Your task to perform on an android device: Open the web browser Image 0: 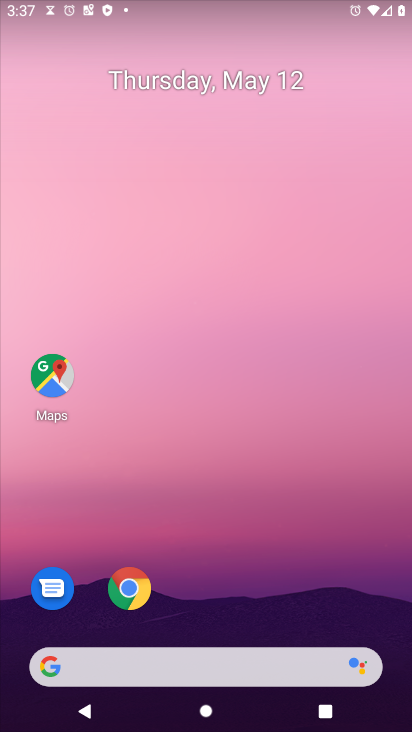
Step 0: drag from (276, 544) to (256, 28)
Your task to perform on an android device: Open the web browser Image 1: 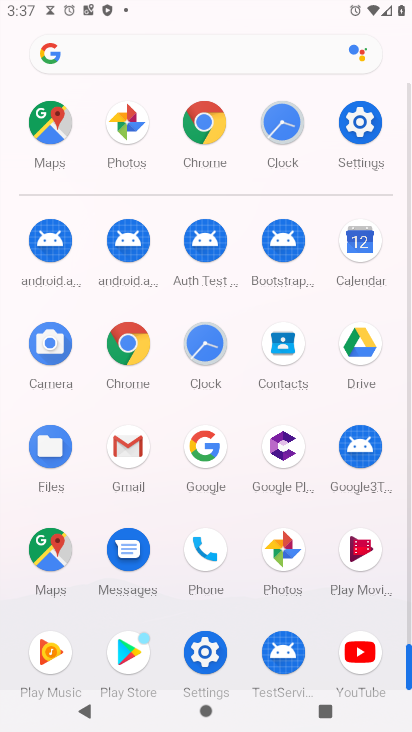
Step 1: drag from (11, 588) to (4, 281)
Your task to perform on an android device: Open the web browser Image 2: 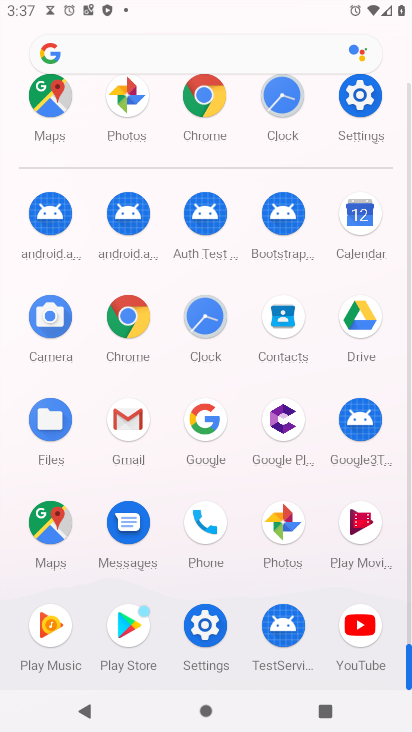
Step 2: click (125, 310)
Your task to perform on an android device: Open the web browser Image 3: 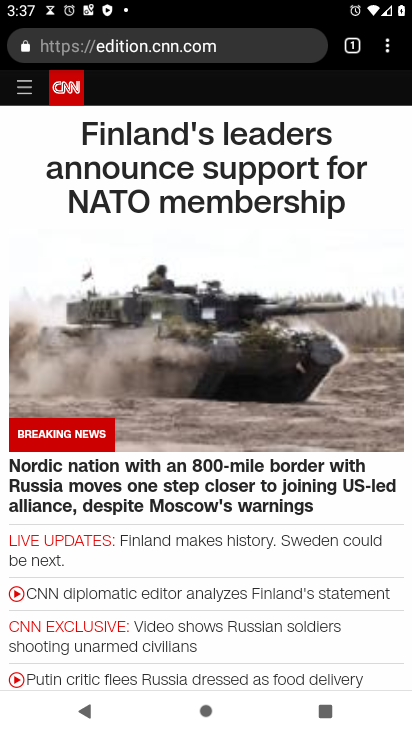
Step 3: task complete